Your task to perform on an android device: open device folders in google photos Image 0: 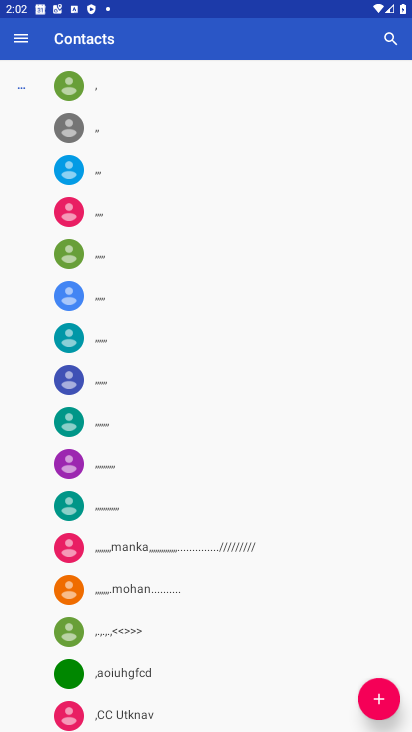
Step 0: press home button
Your task to perform on an android device: open device folders in google photos Image 1: 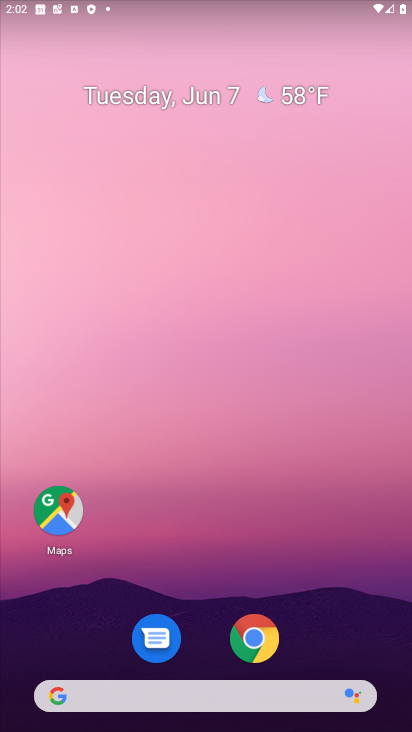
Step 1: drag from (204, 656) to (201, 290)
Your task to perform on an android device: open device folders in google photos Image 2: 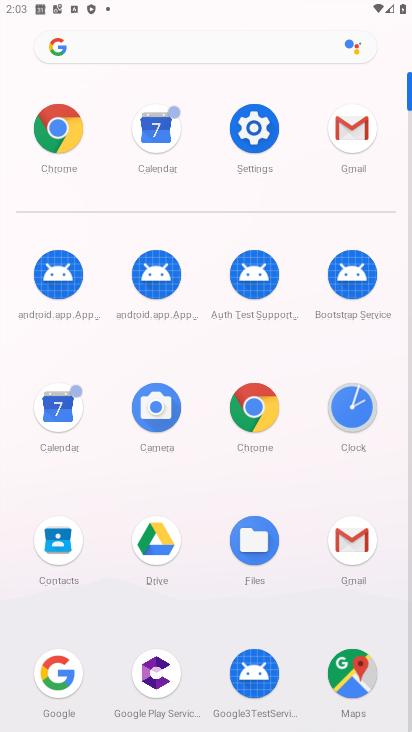
Step 2: drag from (199, 623) to (195, 254)
Your task to perform on an android device: open device folders in google photos Image 3: 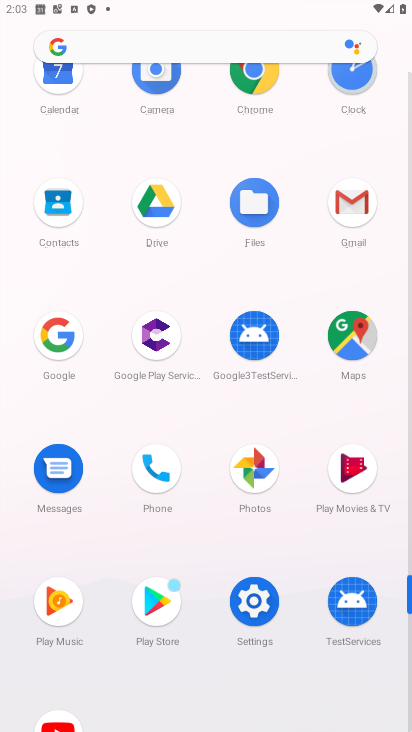
Step 3: click (254, 468)
Your task to perform on an android device: open device folders in google photos Image 4: 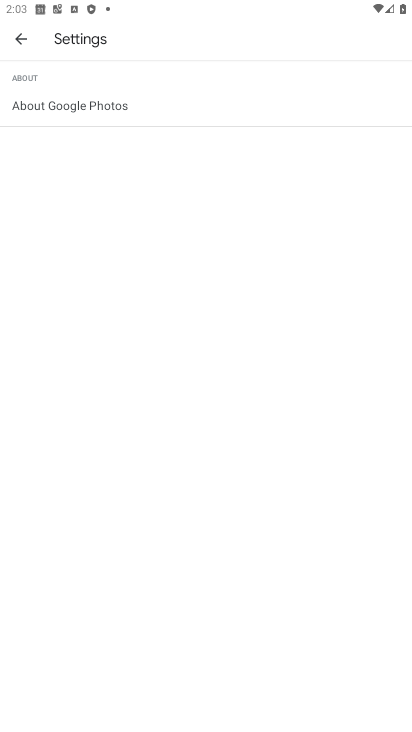
Step 4: click (10, 35)
Your task to perform on an android device: open device folders in google photos Image 5: 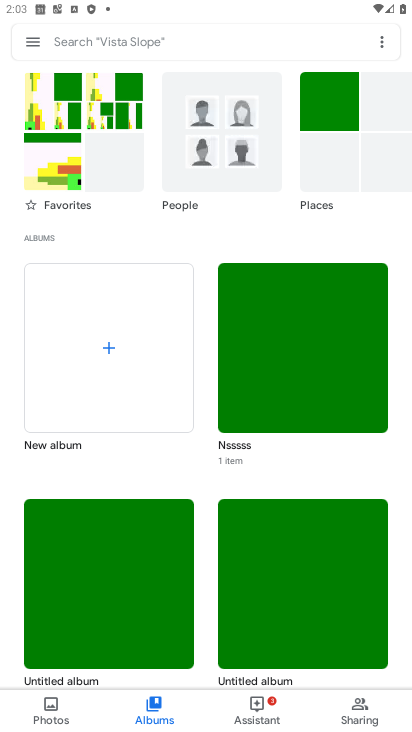
Step 5: click (27, 42)
Your task to perform on an android device: open device folders in google photos Image 6: 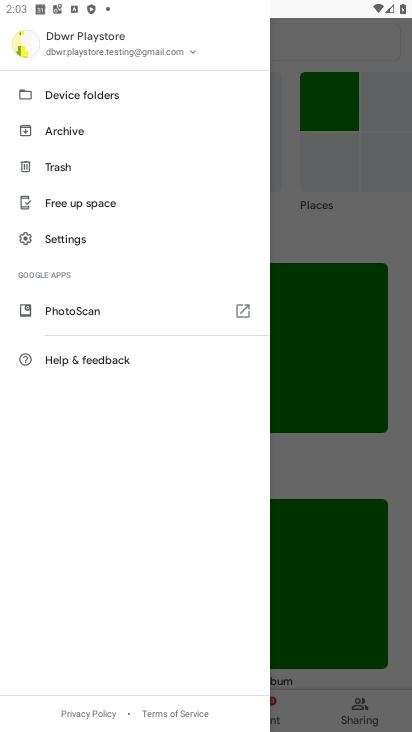
Step 6: click (92, 90)
Your task to perform on an android device: open device folders in google photos Image 7: 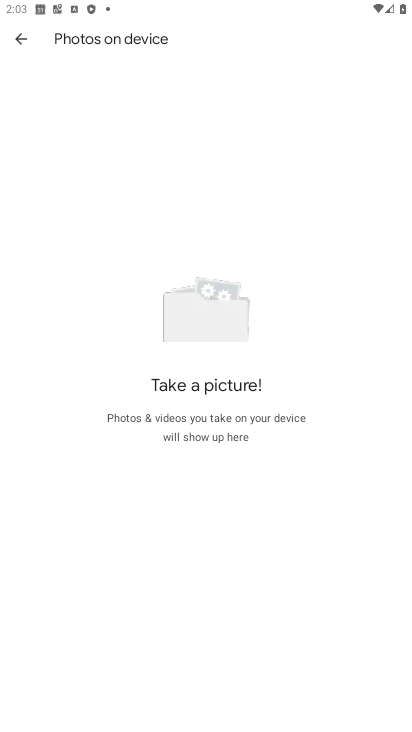
Step 7: task complete